Your task to perform on an android device: Open accessibility settings Image 0: 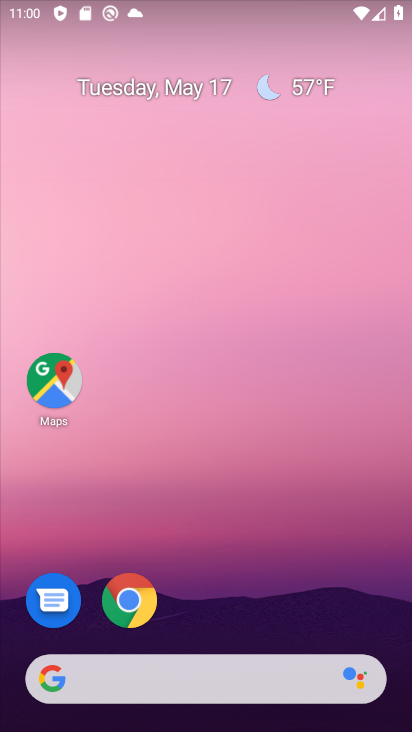
Step 0: drag from (296, 533) to (201, 7)
Your task to perform on an android device: Open accessibility settings Image 1: 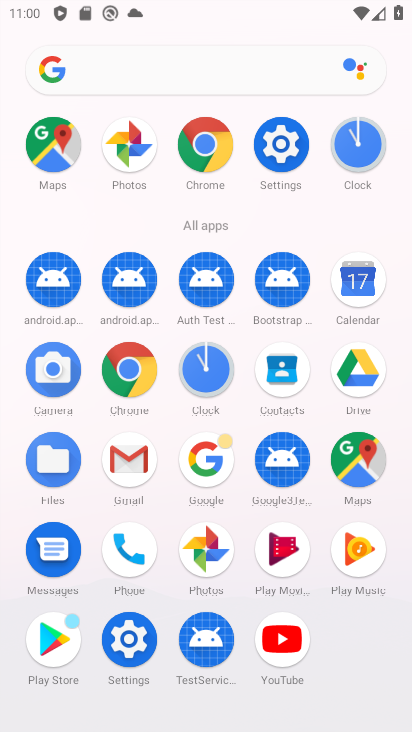
Step 1: click (278, 152)
Your task to perform on an android device: Open accessibility settings Image 2: 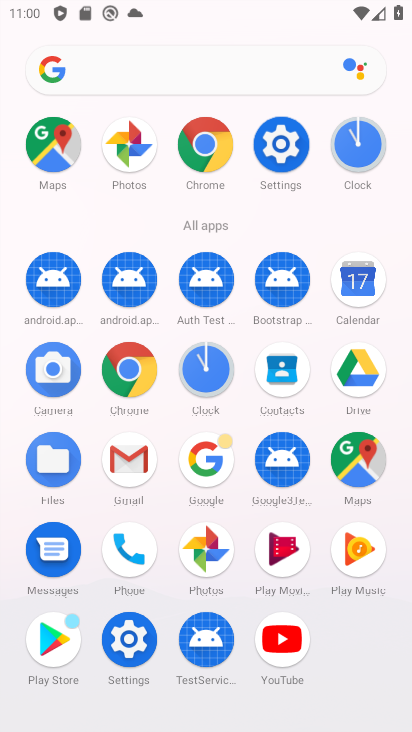
Step 2: click (277, 151)
Your task to perform on an android device: Open accessibility settings Image 3: 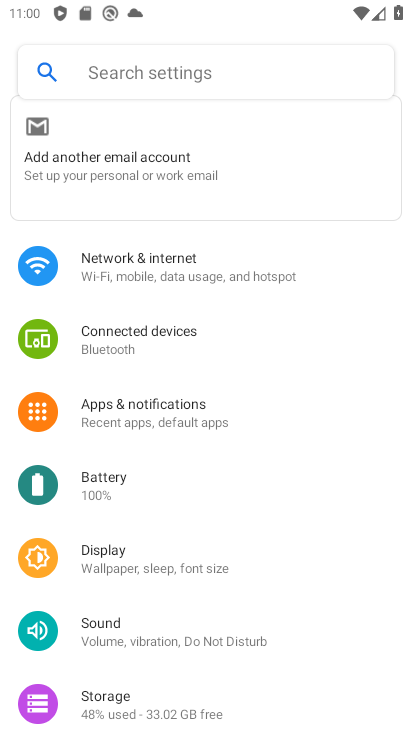
Step 3: drag from (119, 471) to (130, 272)
Your task to perform on an android device: Open accessibility settings Image 4: 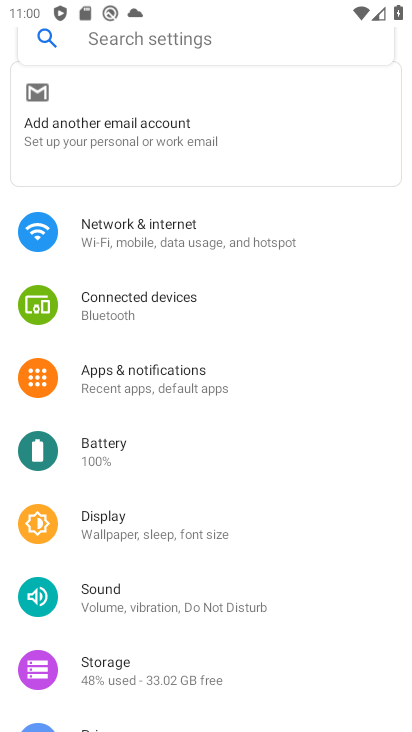
Step 4: drag from (182, 526) to (190, 182)
Your task to perform on an android device: Open accessibility settings Image 5: 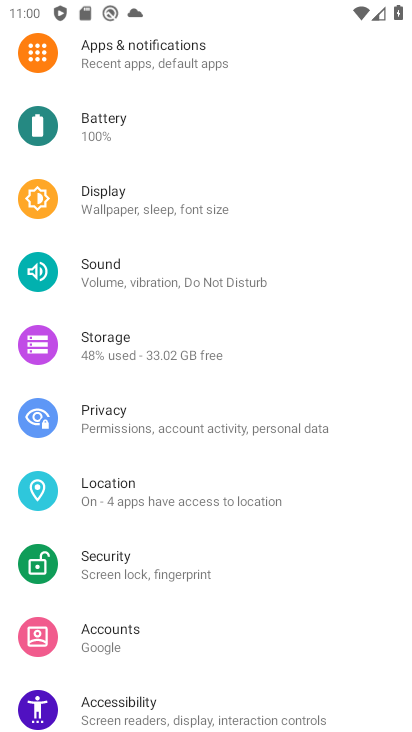
Step 5: drag from (144, 496) to (183, 146)
Your task to perform on an android device: Open accessibility settings Image 6: 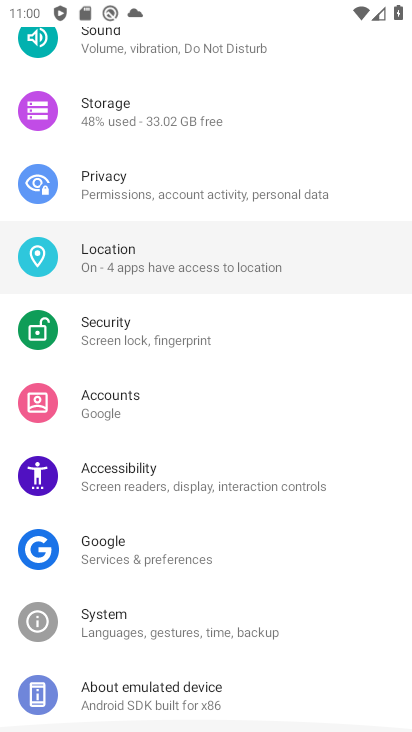
Step 6: drag from (172, 410) to (172, 144)
Your task to perform on an android device: Open accessibility settings Image 7: 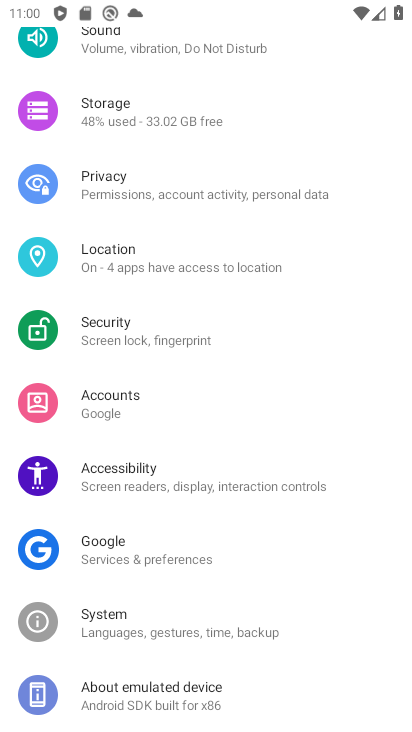
Step 7: click (118, 475)
Your task to perform on an android device: Open accessibility settings Image 8: 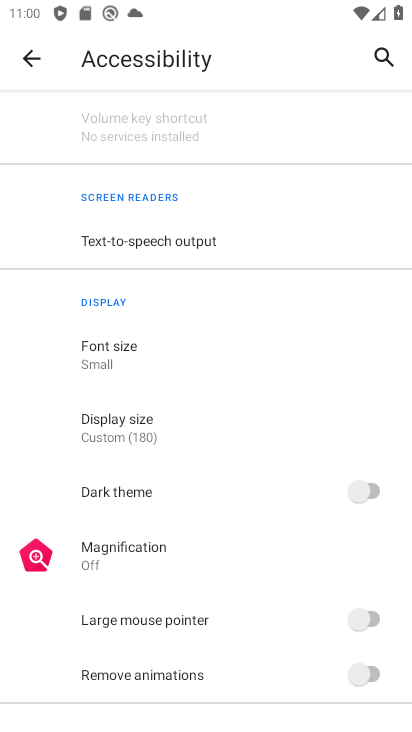
Step 8: task complete